Your task to perform on an android device: Open Chrome and go to settings Image 0: 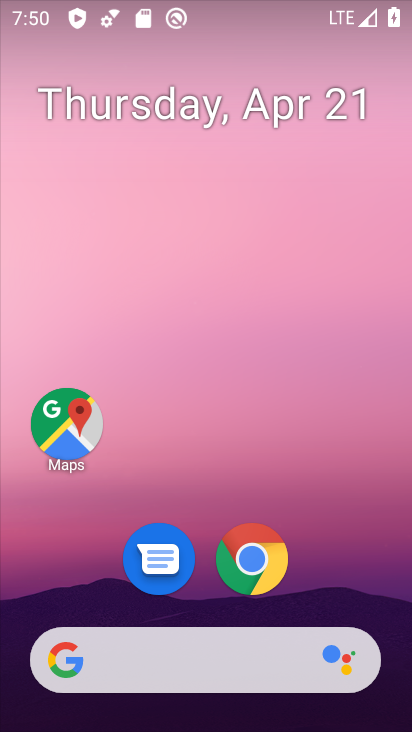
Step 0: drag from (373, 567) to (363, 161)
Your task to perform on an android device: Open Chrome and go to settings Image 1: 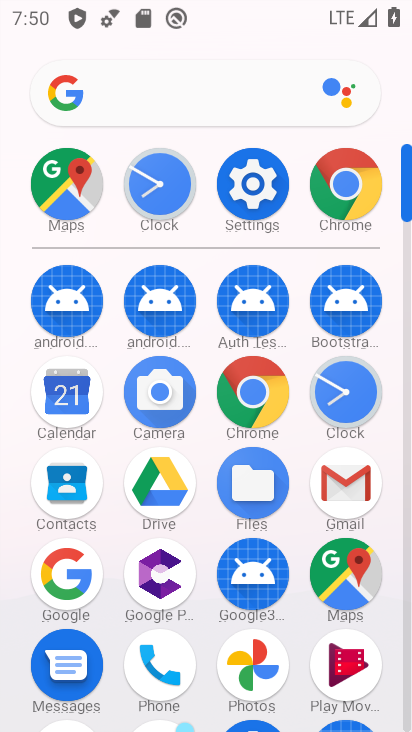
Step 1: click (246, 404)
Your task to perform on an android device: Open Chrome and go to settings Image 2: 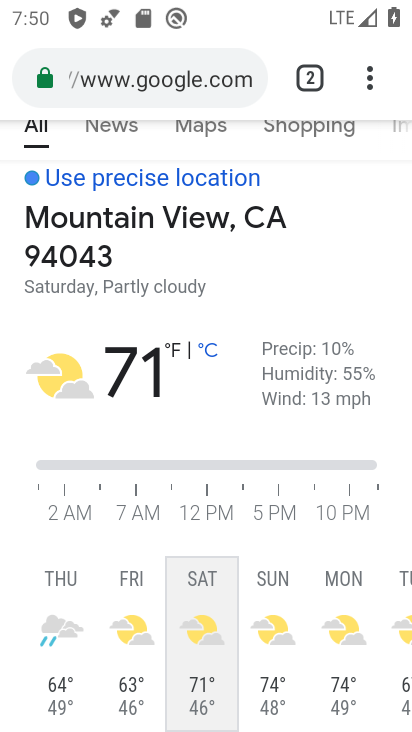
Step 2: task complete